Your task to perform on an android device: toggle translation in the chrome app Image 0: 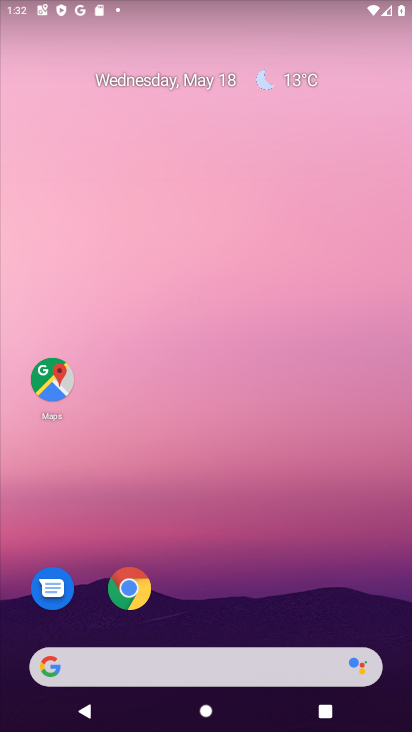
Step 0: click (232, 415)
Your task to perform on an android device: toggle translation in the chrome app Image 1: 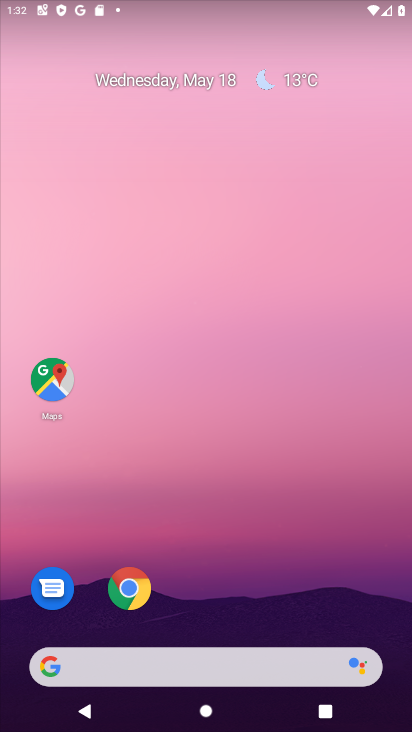
Step 1: click (131, 576)
Your task to perform on an android device: toggle translation in the chrome app Image 2: 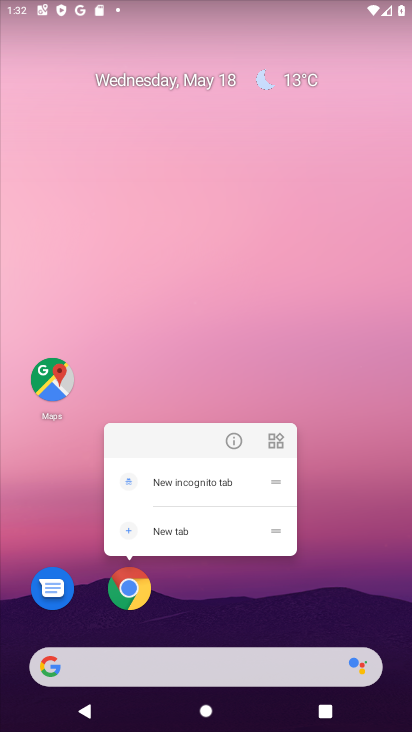
Step 2: click (236, 441)
Your task to perform on an android device: toggle translation in the chrome app Image 3: 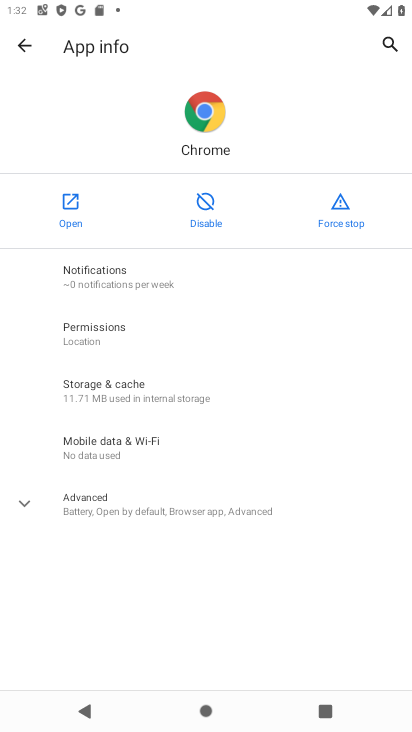
Step 3: click (76, 216)
Your task to perform on an android device: toggle translation in the chrome app Image 4: 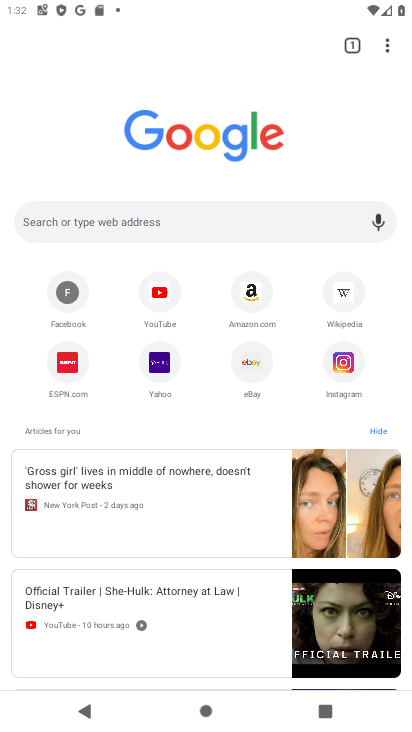
Step 4: click (387, 49)
Your task to perform on an android device: toggle translation in the chrome app Image 5: 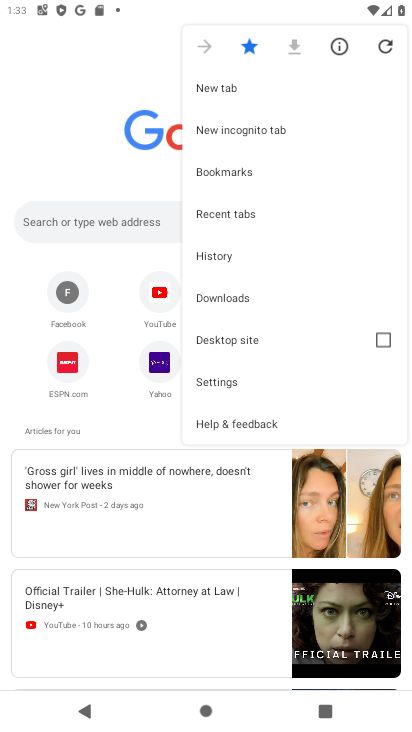
Step 5: click (221, 378)
Your task to perform on an android device: toggle translation in the chrome app Image 6: 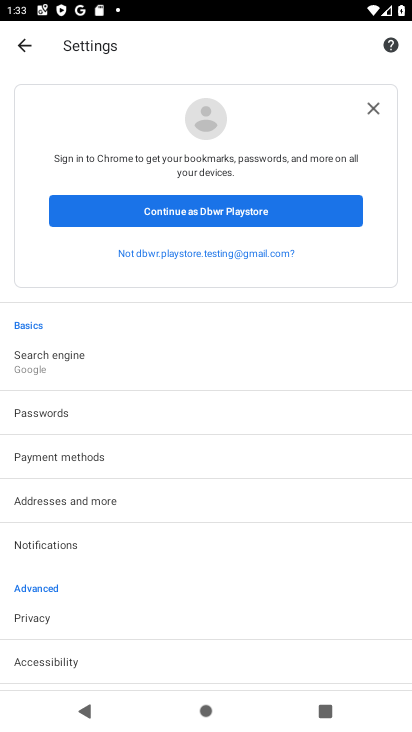
Step 6: drag from (190, 605) to (210, 424)
Your task to perform on an android device: toggle translation in the chrome app Image 7: 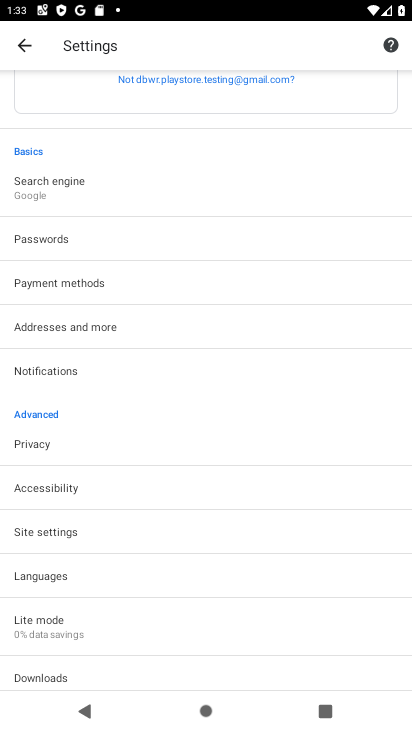
Step 7: click (97, 573)
Your task to perform on an android device: toggle translation in the chrome app Image 8: 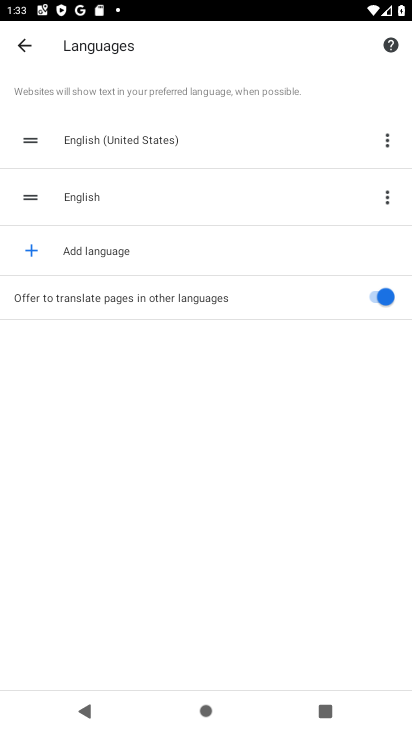
Step 8: click (387, 292)
Your task to perform on an android device: toggle translation in the chrome app Image 9: 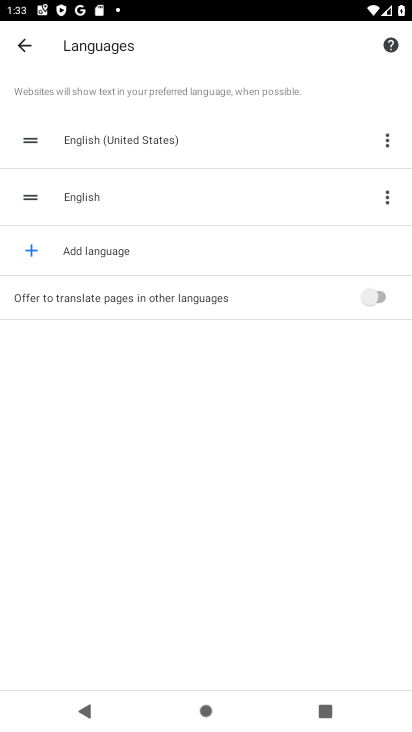
Step 9: task complete